Your task to perform on an android device: Go to internet settings Image 0: 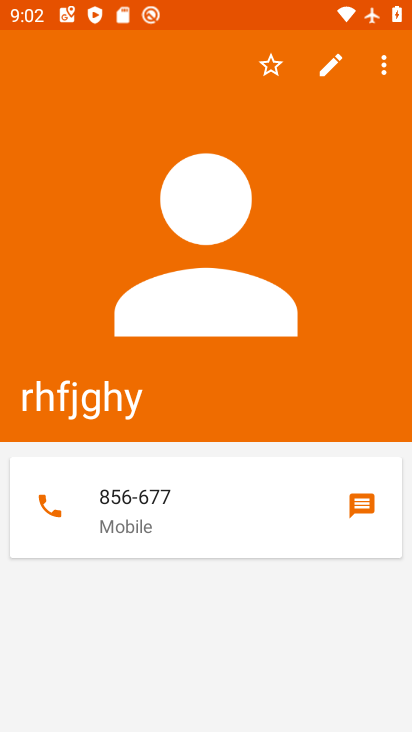
Step 0: press home button
Your task to perform on an android device: Go to internet settings Image 1: 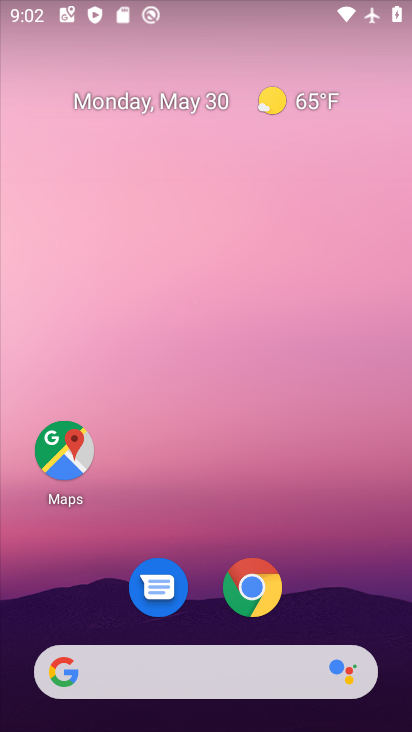
Step 1: drag from (193, 675) to (282, 265)
Your task to perform on an android device: Go to internet settings Image 2: 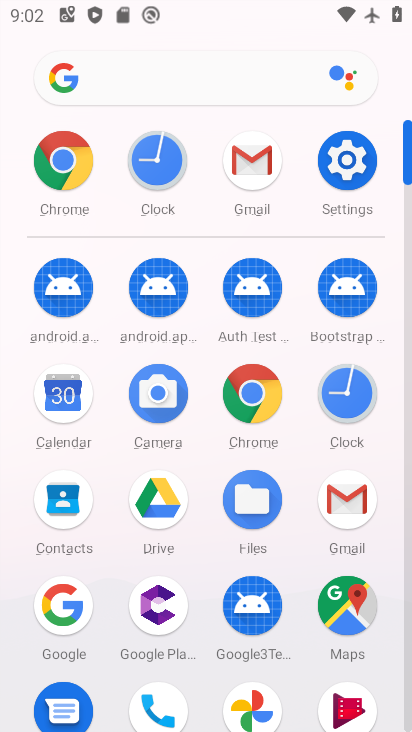
Step 2: click (342, 177)
Your task to perform on an android device: Go to internet settings Image 3: 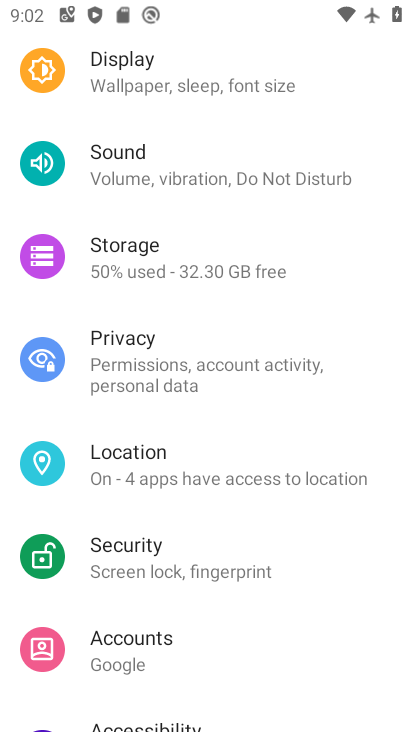
Step 3: drag from (326, 115) to (259, 654)
Your task to perform on an android device: Go to internet settings Image 4: 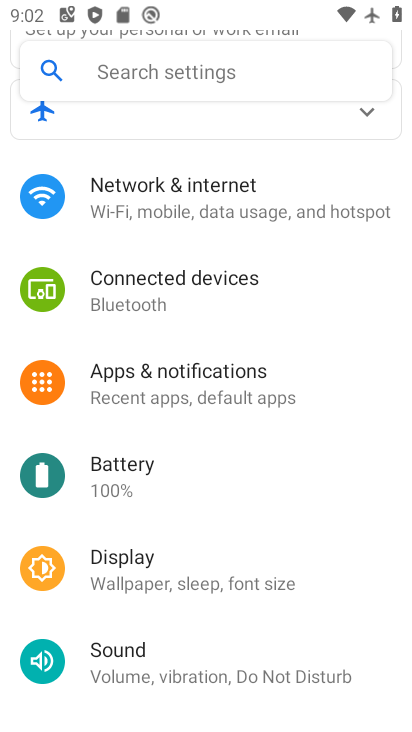
Step 4: click (131, 196)
Your task to perform on an android device: Go to internet settings Image 5: 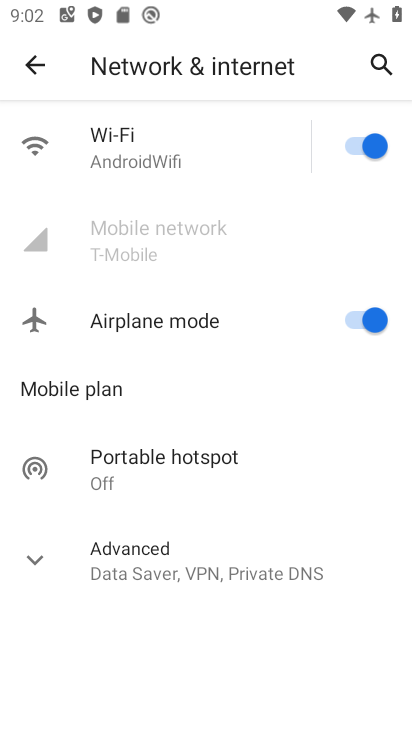
Step 5: click (150, 146)
Your task to perform on an android device: Go to internet settings Image 6: 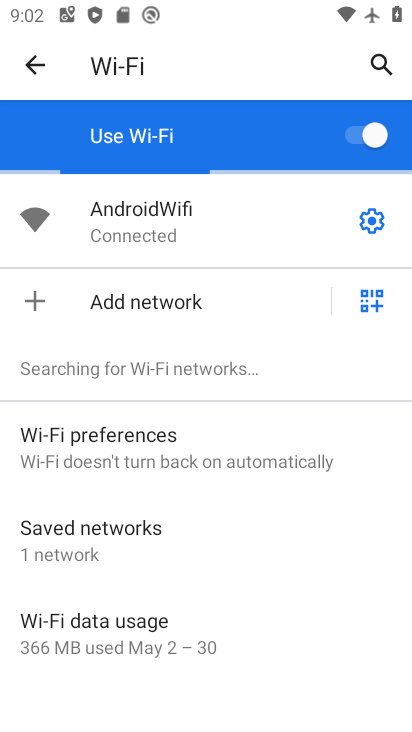
Step 6: task complete